Your task to perform on an android device: turn on javascript in the chrome app Image 0: 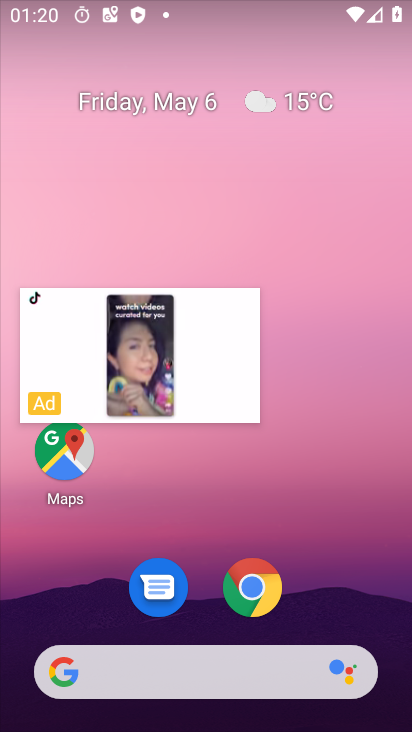
Step 0: drag from (192, 376) to (156, 200)
Your task to perform on an android device: turn on javascript in the chrome app Image 1: 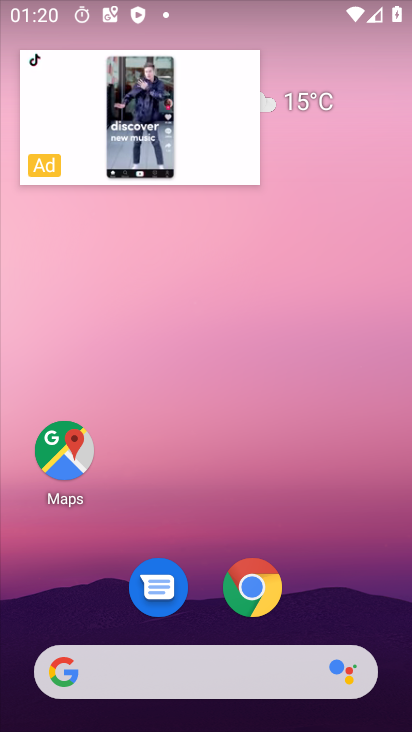
Step 1: click (254, 583)
Your task to perform on an android device: turn on javascript in the chrome app Image 2: 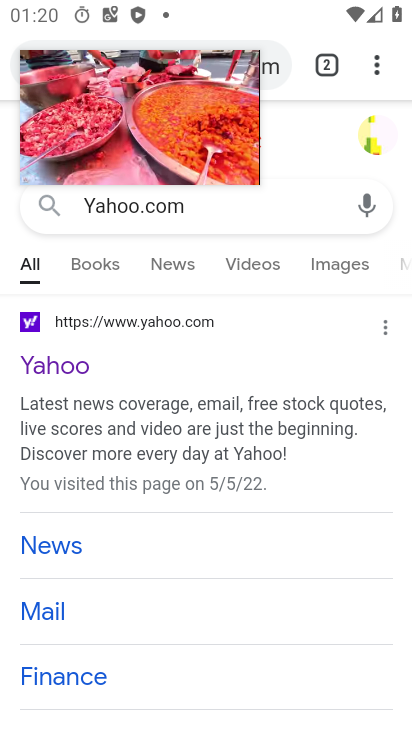
Step 2: click (372, 67)
Your task to perform on an android device: turn on javascript in the chrome app Image 3: 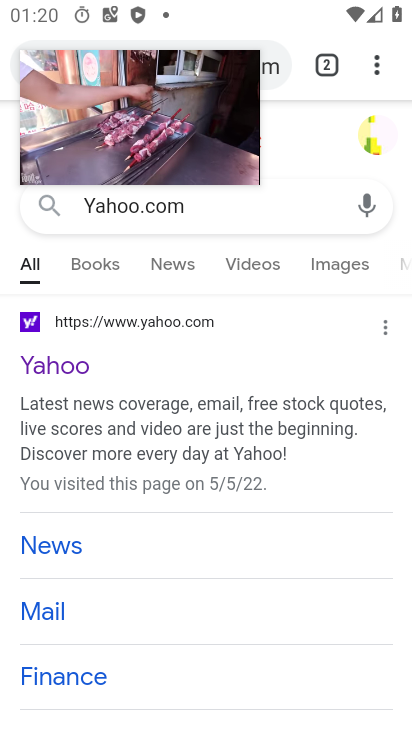
Step 3: click (374, 59)
Your task to perform on an android device: turn on javascript in the chrome app Image 4: 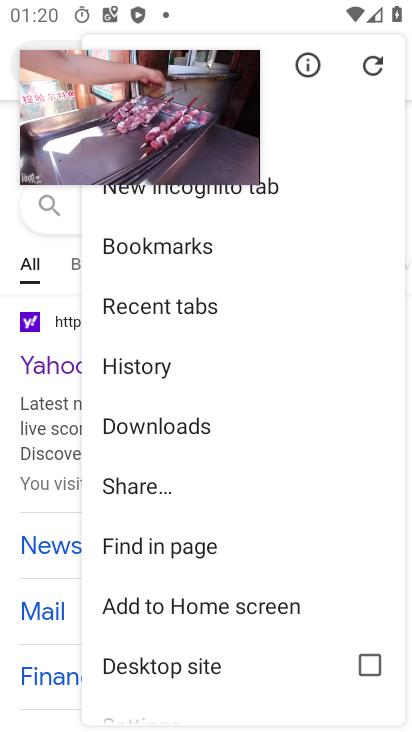
Step 4: drag from (291, 688) to (219, 353)
Your task to perform on an android device: turn on javascript in the chrome app Image 5: 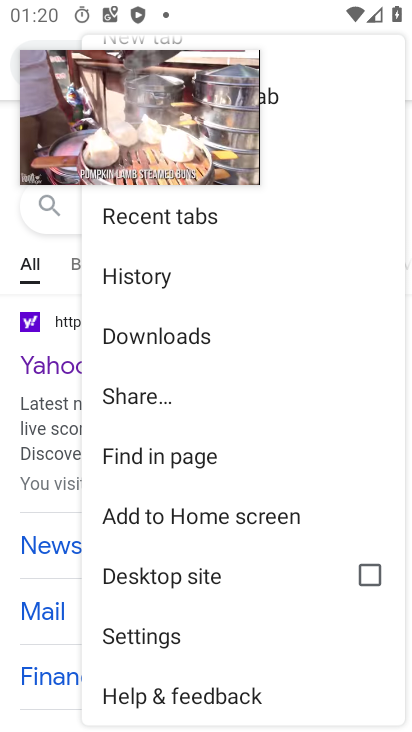
Step 5: click (153, 630)
Your task to perform on an android device: turn on javascript in the chrome app Image 6: 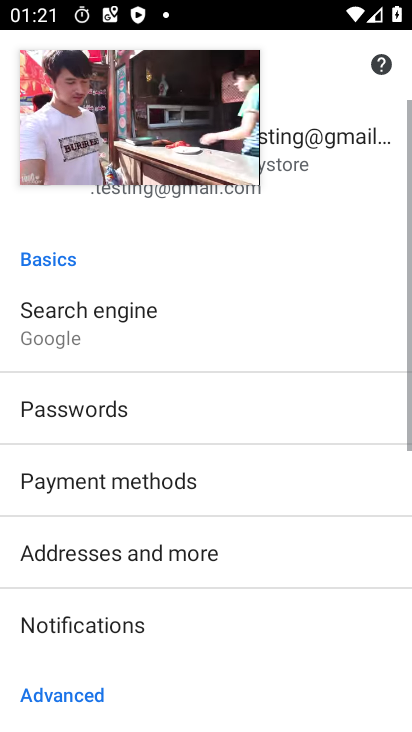
Step 6: drag from (200, 637) to (172, 374)
Your task to perform on an android device: turn on javascript in the chrome app Image 7: 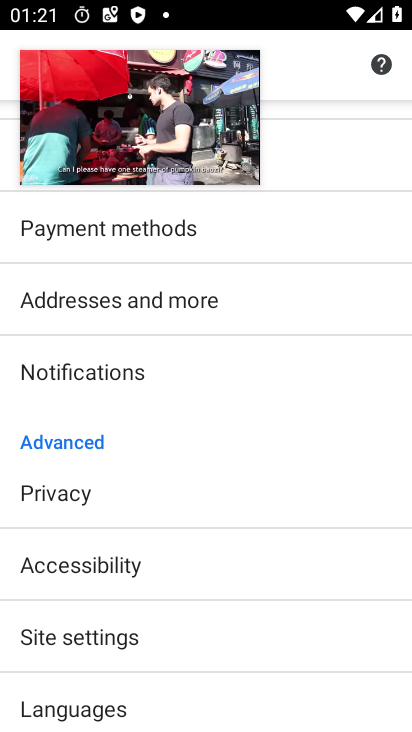
Step 7: click (96, 635)
Your task to perform on an android device: turn on javascript in the chrome app Image 8: 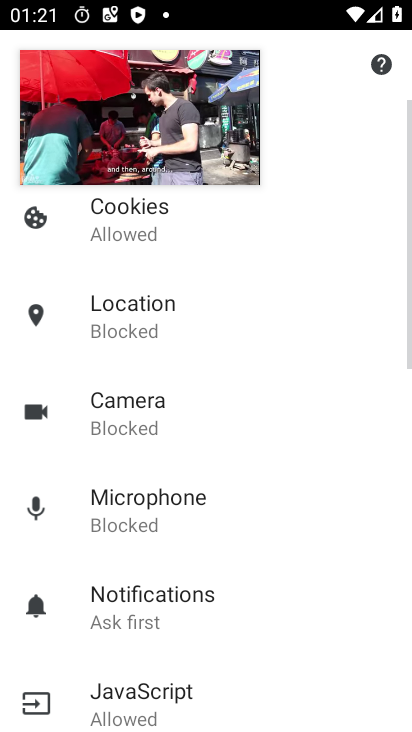
Step 8: drag from (234, 651) to (200, 422)
Your task to perform on an android device: turn on javascript in the chrome app Image 9: 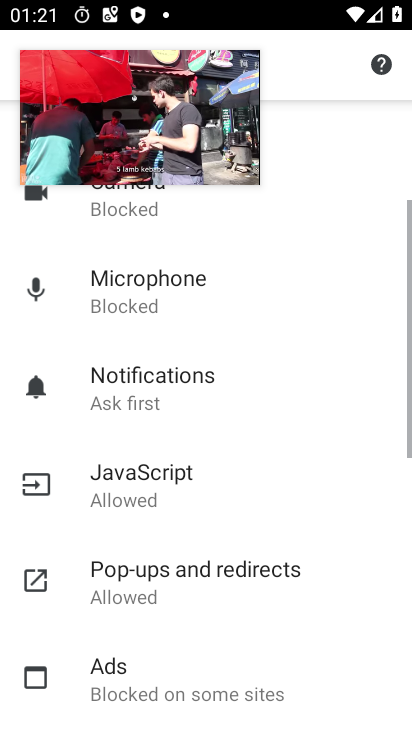
Step 9: click (130, 477)
Your task to perform on an android device: turn on javascript in the chrome app Image 10: 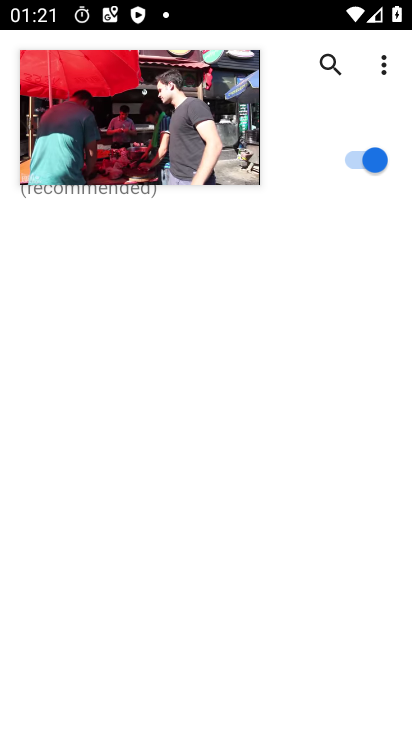
Step 10: task complete